Your task to perform on an android device: see creations saved in the google photos Image 0: 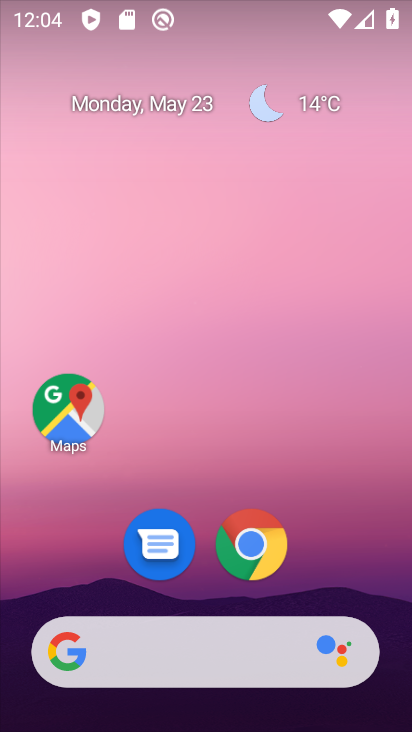
Step 0: drag from (326, 506) to (245, 104)
Your task to perform on an android device: see creations saved in the google photos Image 1: 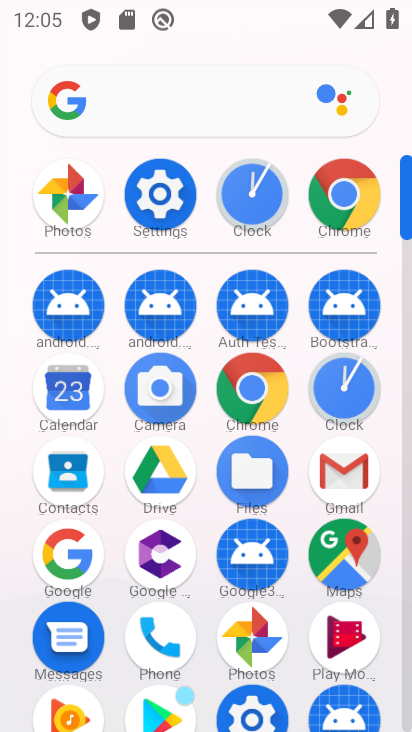
Step 1: click (256, 644)
Your task to perform on an android device: see creations saved in the google photos Image 2: 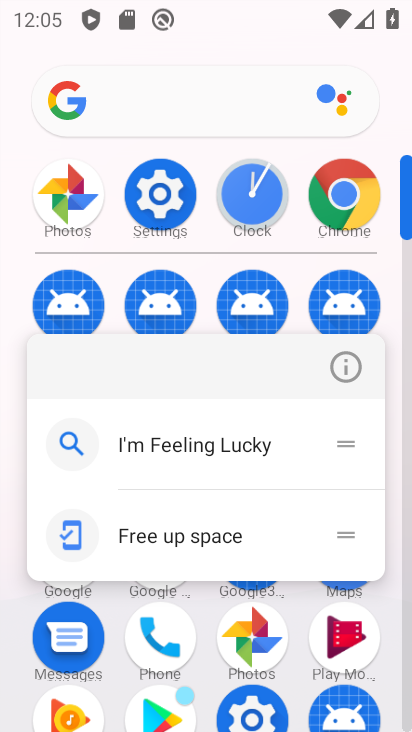
Step 2: click (248, 645)
Your task to perform on an android device: see creations saved in the google photos Image 3: 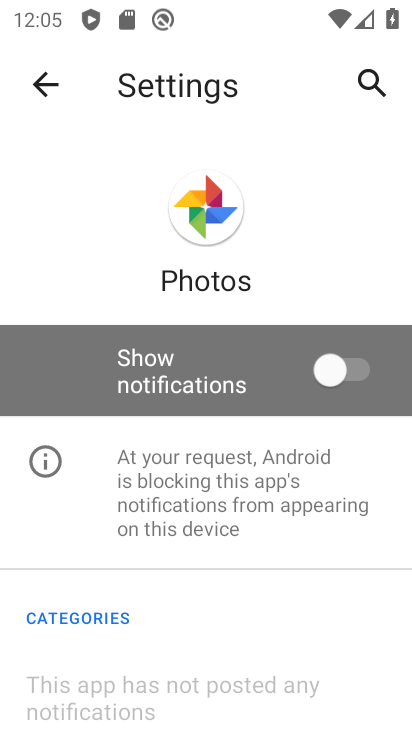
Step 3: click (37, 77)
Your task to perform on an android device: see creations saved in the google photos Image 4: 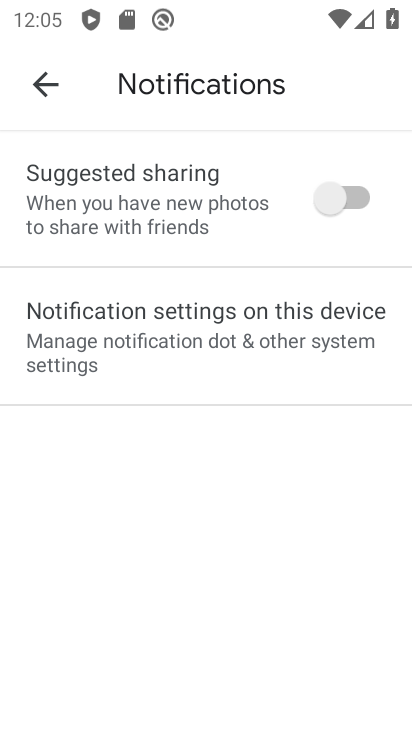
Step 4: click (45, 82)
Your task to perform on an android device: see creations saved in the google photos Image 5: 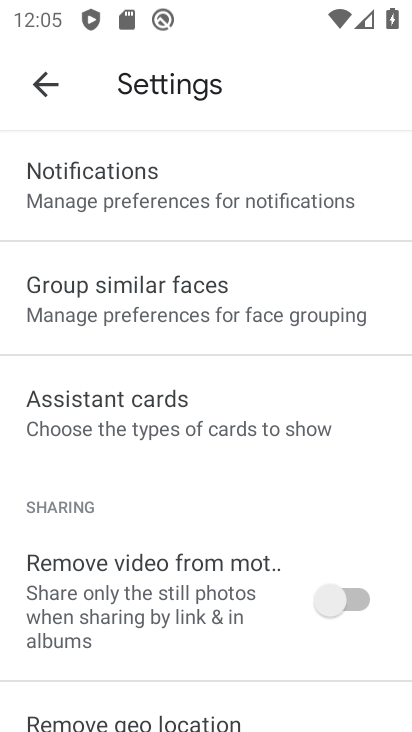
Step 5: click (45, 82)
Your task to perform on an android device: see creations saved in the google photos Image 6: 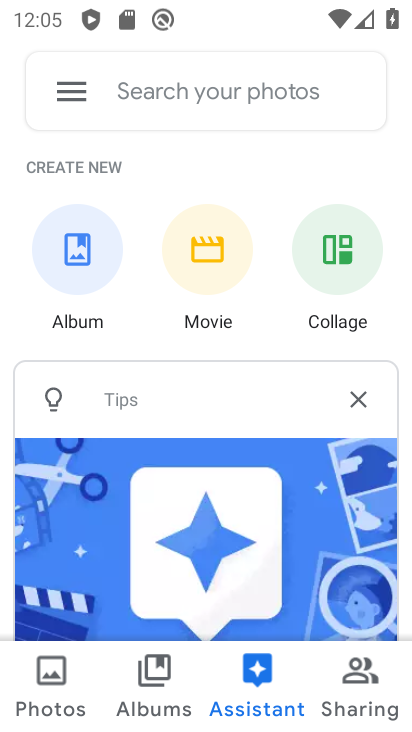
Step 6: click (375, 709)
Your task to perform on an android device: see creations saved in the google photos Image 7: 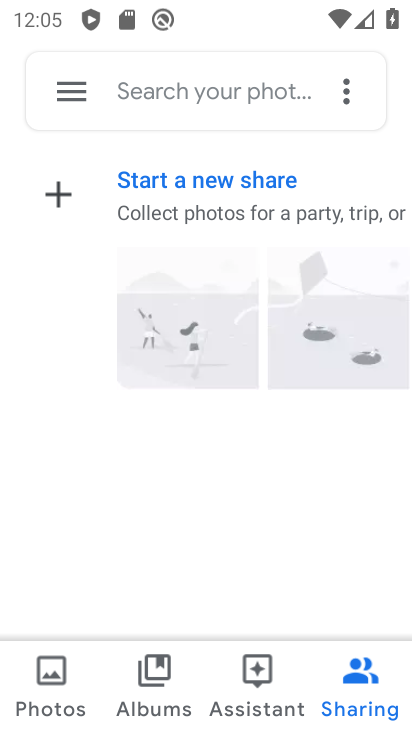
Step 7: click (178, 689)
Your task to perform on an android device: see creations saved in the google photos Image 8: 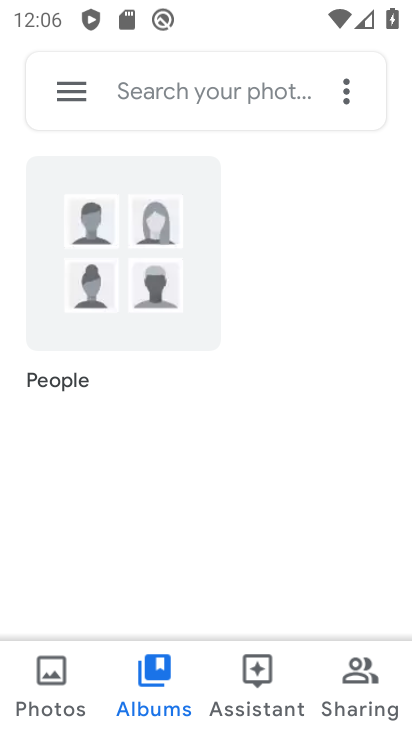
Step 8: click (64, 703)
Your task to perform on an android device: see creations saved in the google photos Image 9: 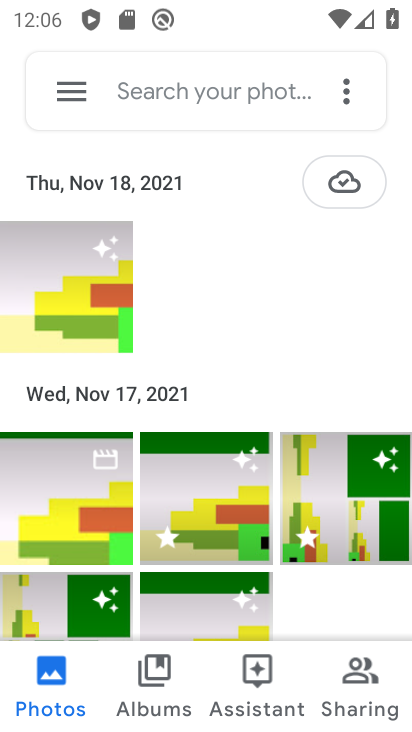
Step 9: task complete